Your task to perform on an android device: clear history in the chrome app Image 0: 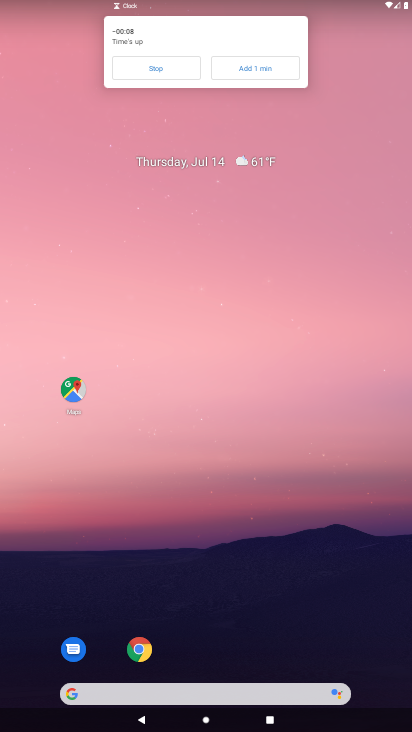
Step 0: click (263, 577)
Your task to perform on an android device: clear history in the chrome app Image 1: 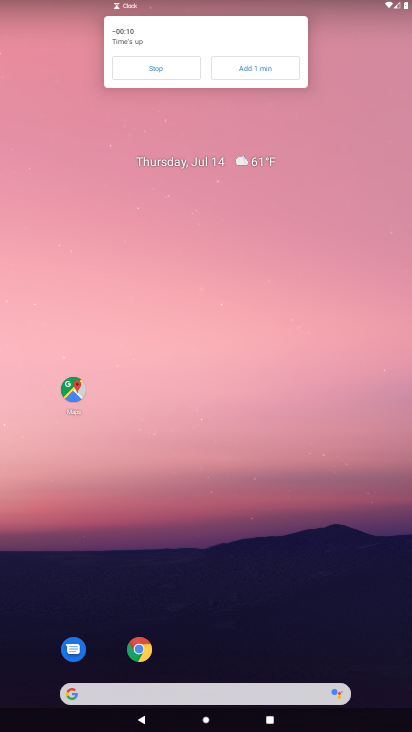
Step 1: click (149, 71)
Your task to perform on an android device: clear history in the chrome app Image 2: 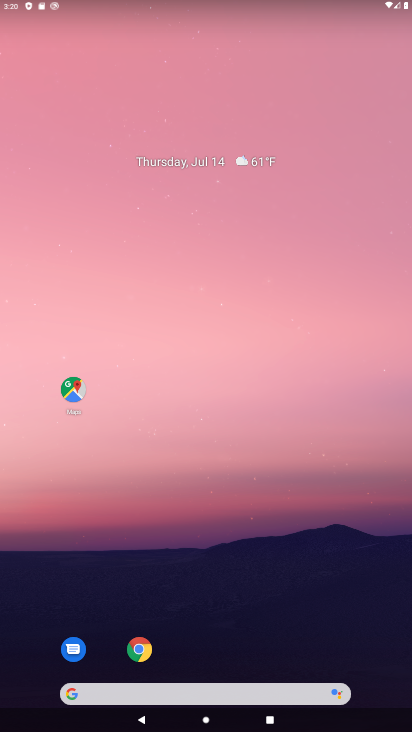
Step 2: drag from (217, 650) to (175, 207)
Your task to perform on an android device: clear history in the chrome app Image 3: 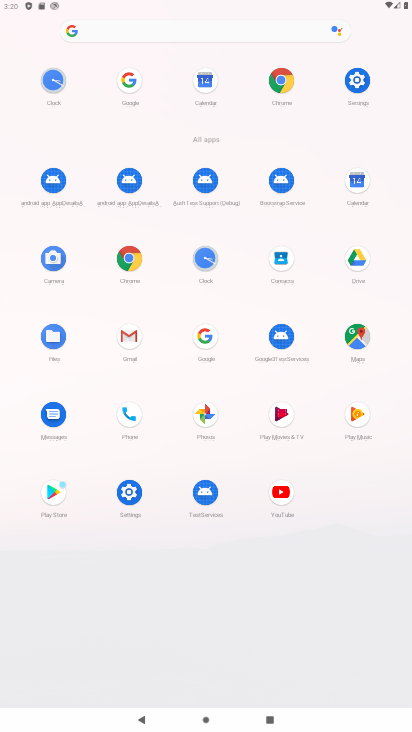
Step 3: click (127, 265)
Your task to perform on an android device: clear history in the chrome app Image 4: 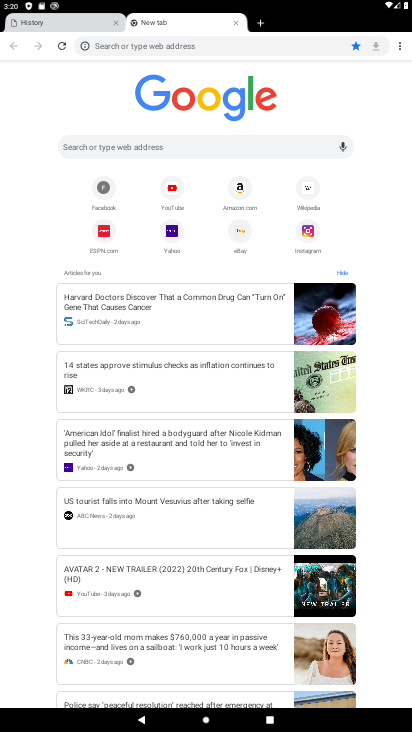
Step 4: task complete